Your task to perform on an android device: all mails in gmail Image 0: 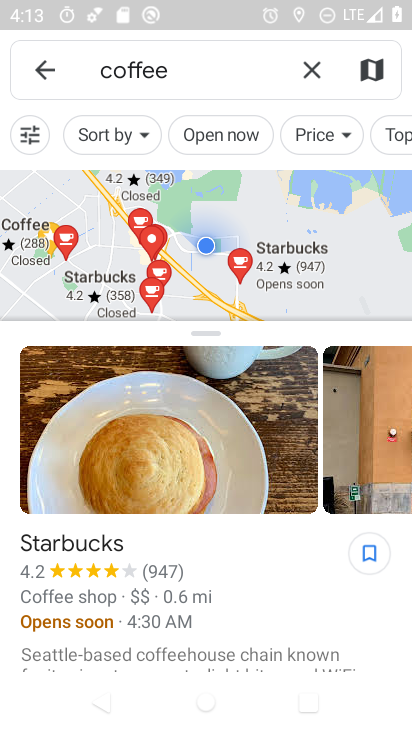
Step 0: press home button
Your task to perform on an android device: all mails in gmail Image 1: 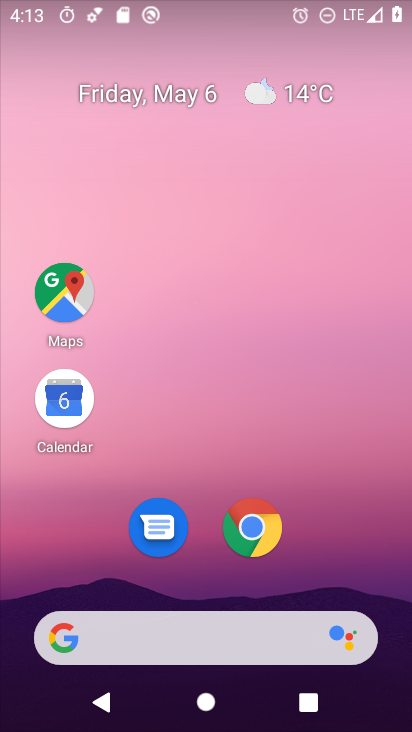
Step 1: drag from (327, 501) to (212, 21)
Your task to perform on an android device: all mails in gmail Image 2: 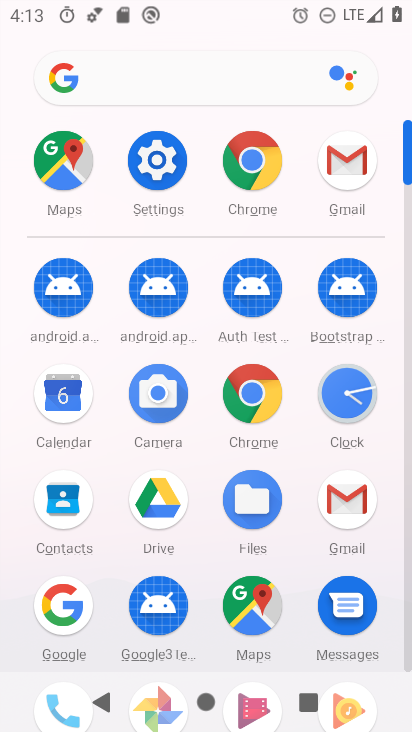
Step 2: click (331, 498)
Your task to perform on an android device: all mails in gmail Image 3: 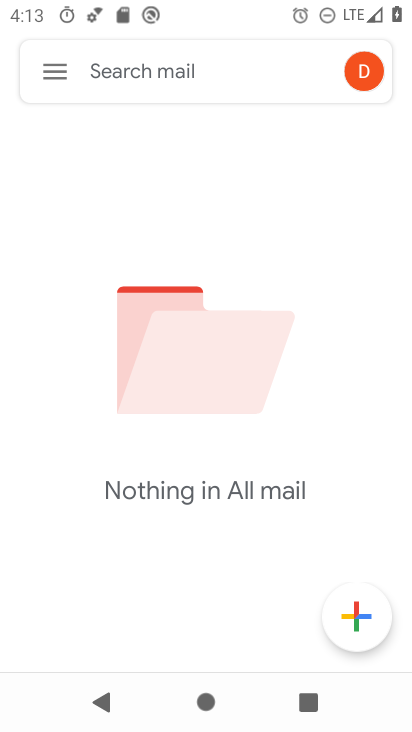
Step 3: click (53, 65)
Your task to perform on an android device: all mails in gmail Image 4: 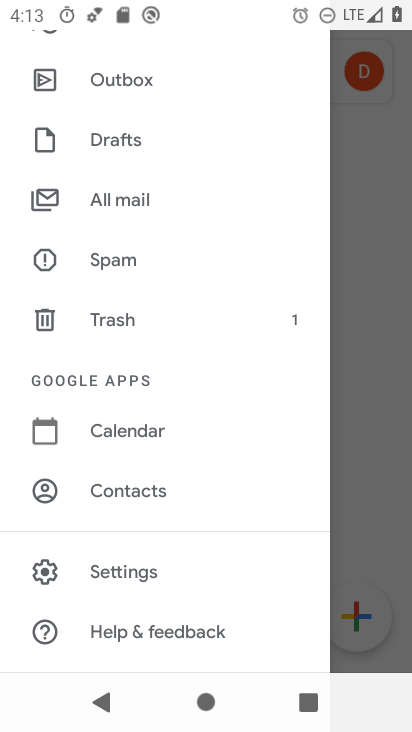
Step 4: click (157, 204)
Your task to perform on an android device: all mails in gmail Image 5: 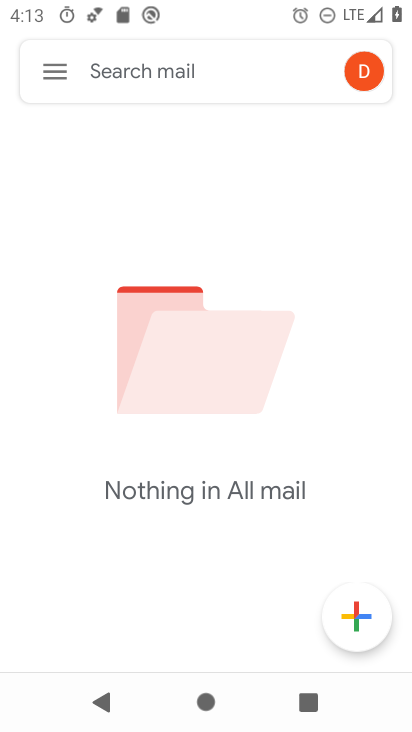
Step 5: task complete